Your task to perform on an android device: Open battery settings Image 0: 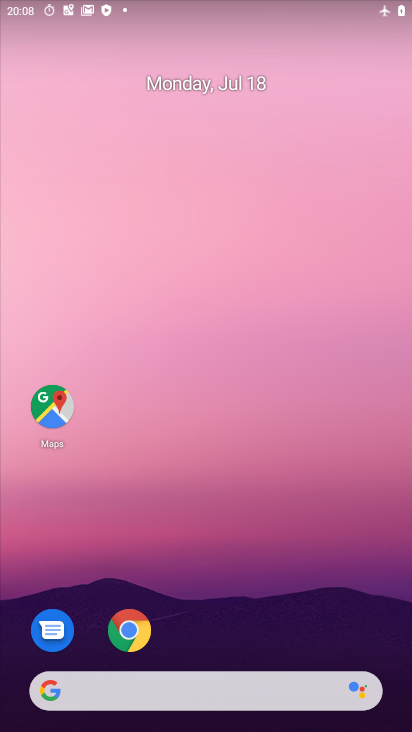
Step 0: drag from (320, 585) to (367, 164)
Your task to perform on an android device: Open battery settings Image 1: 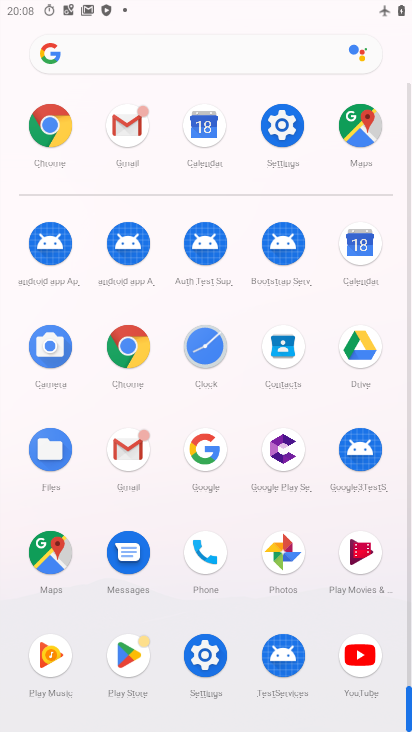
Step 1: click (277, 122)
Your task to perform on an android device: Open battery settings Image 2: 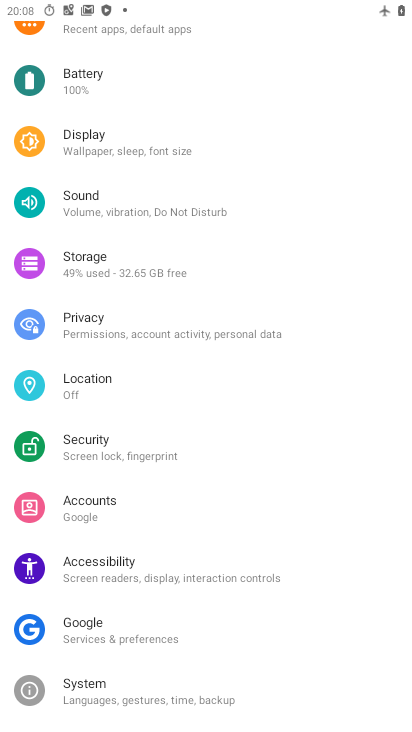
Step 2: click (66, 84)
Your task to perform on an android device: Open battery settings Image 3: 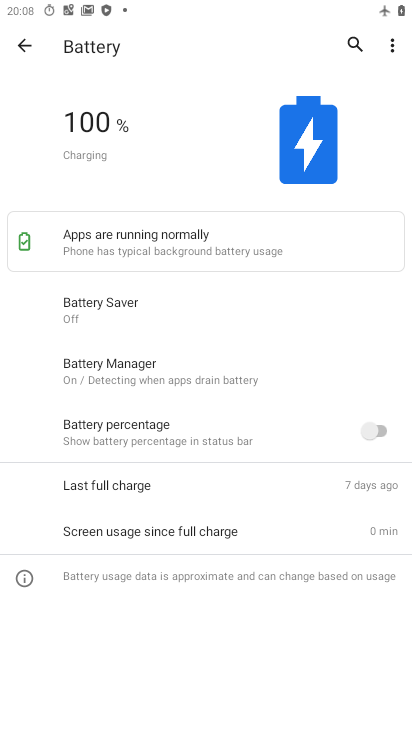
Step 3: task complete